Your task to perform on an android device: toggle location history Image 0: 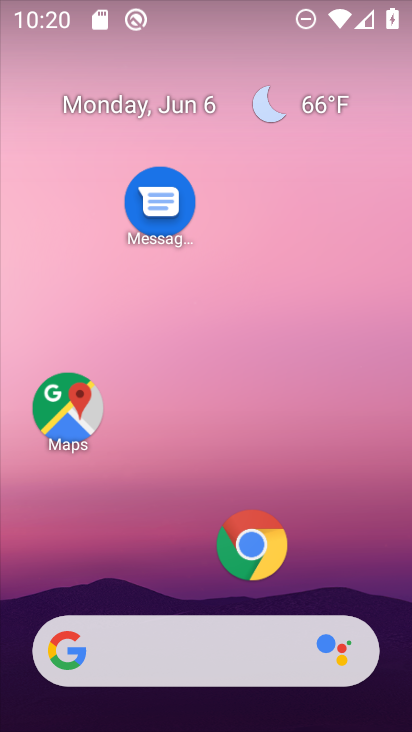
Step 0: drag from (141, 25) to (15, 65)
Your task to perform on an android device: toggle location history Image 1: 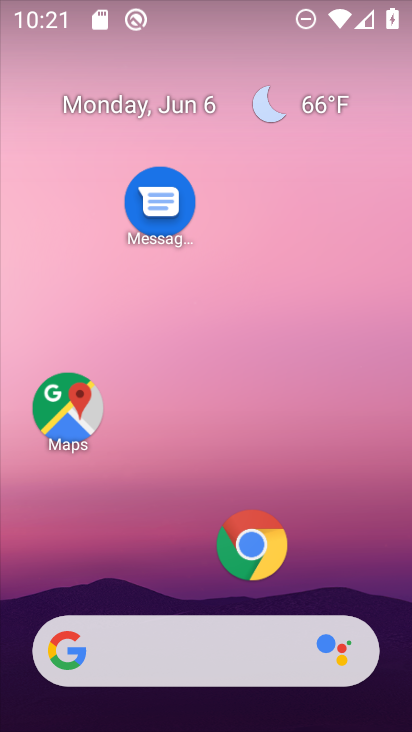
Step 1: click (208, 235)
Your task to perform on an android device: toggle location history Image 2: 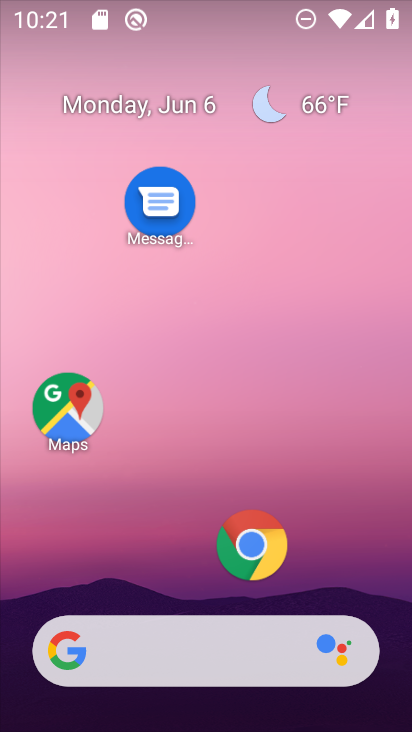
Step 2: drag from (154, 582) to (315, 53)
Your task to perform on an android device: toggle location history Image 3: 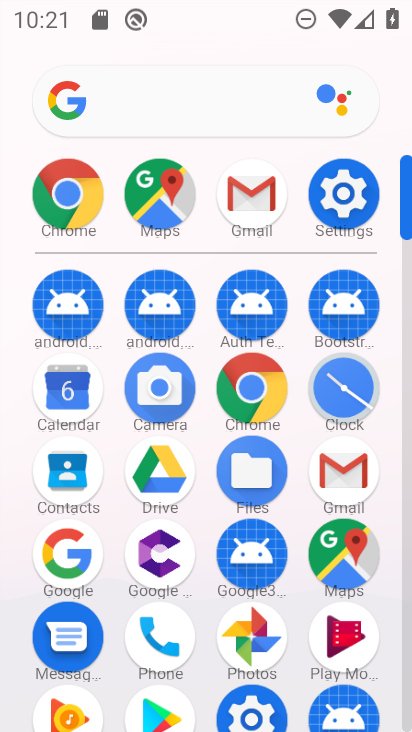
Step 3: click (353, 198)
Your task to perform on an android device: toggle location history Image 4: 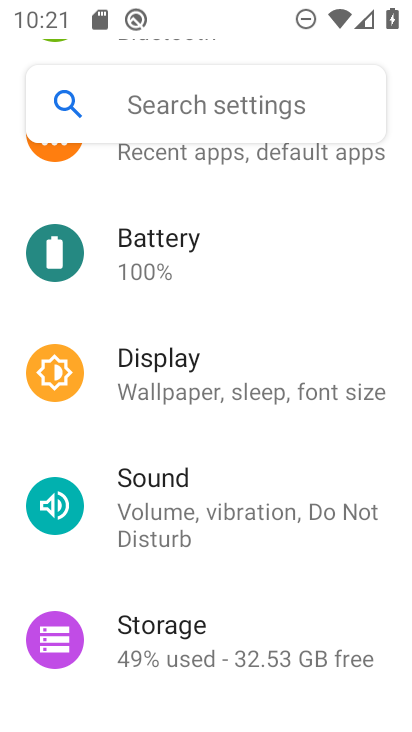
Step 4: drag from (263, 289) to (264, 701)
Your task to perform on an android device: toggle location history Image 5: 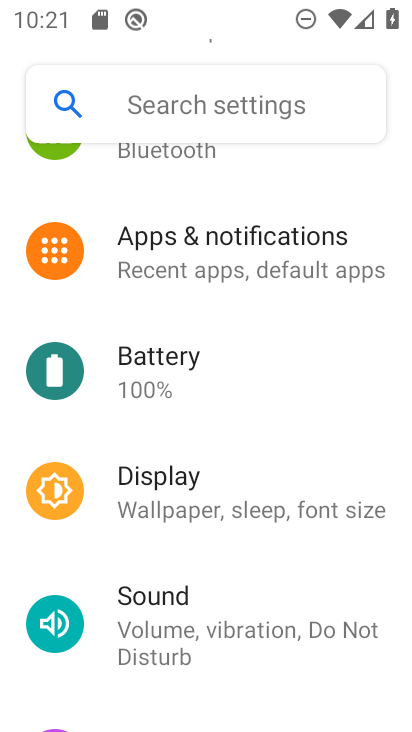
Step 5: drag from (240, 605) to (307, 255)
Your task to perform on an android device: toggle location history Image 6: 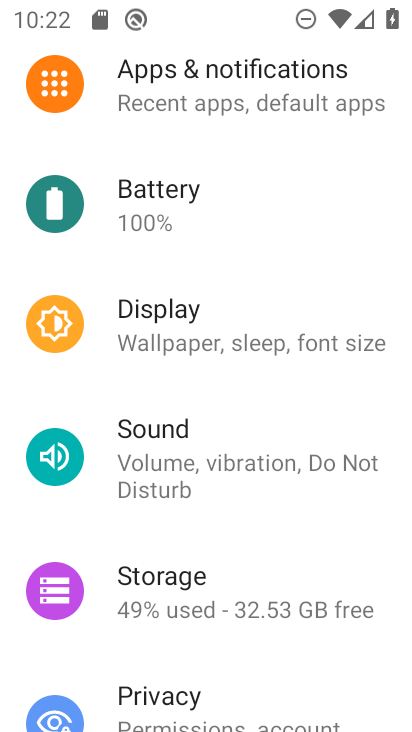
Step 6: drag from (250, 684) to (327, 253)
Your task to perform on an android device: toggle location history Image 7: 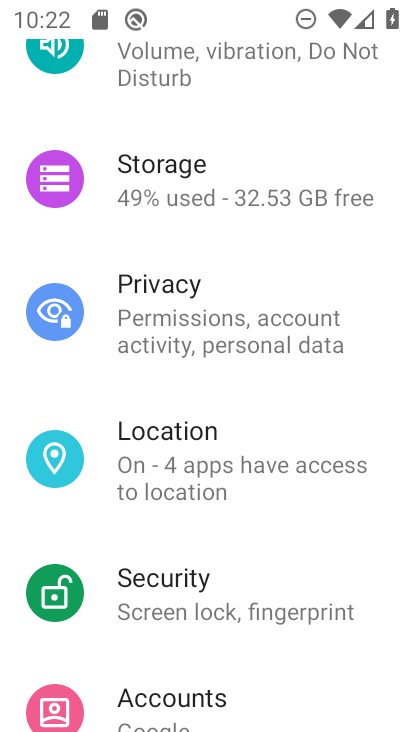
Step 7: click (155, 475)
Your task to perform on an android device: toggle location history Image 8: 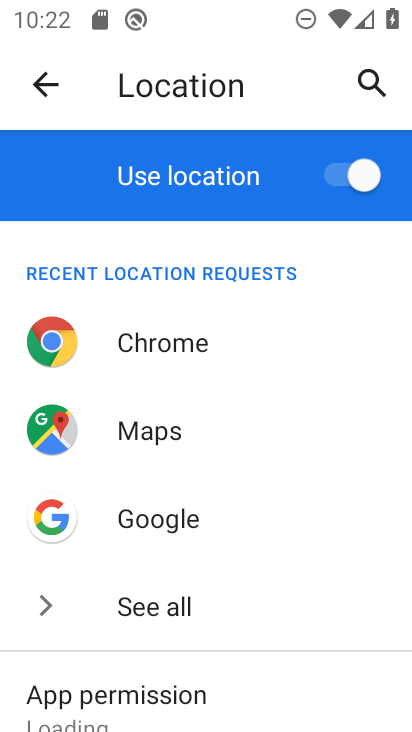
Step 8: drag from (232, 620) to (289, 223)
Your task to perform on an android device: toggle location history Image 9: 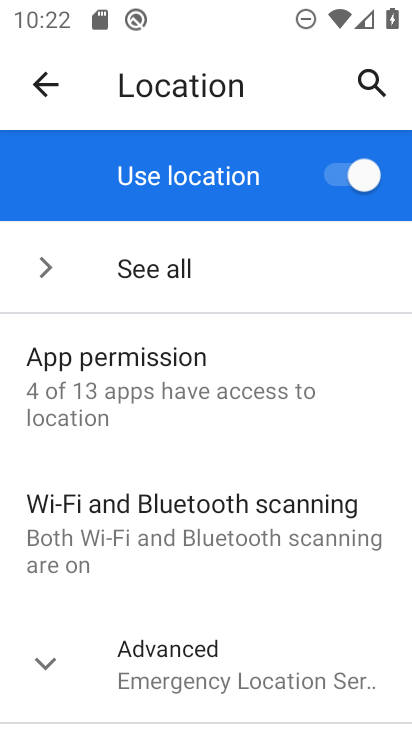
Step 9: click (42, 658)
Your task to perform on an android device: toggle location history Image 10: 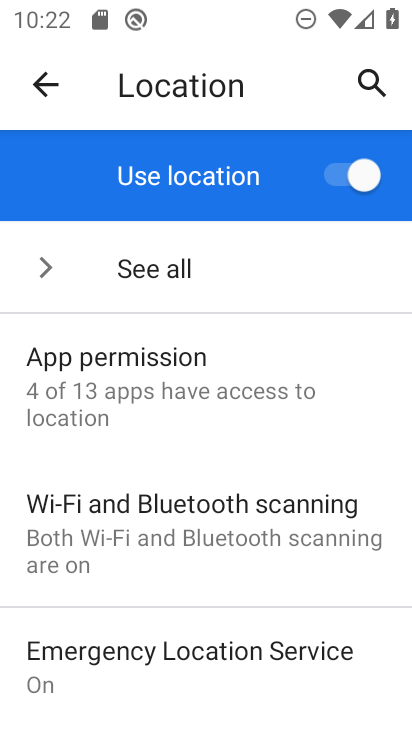
Step 10: drag from (177, 607) to (314, 291)
Your task to perform on an android device: toggle location history Image 11: 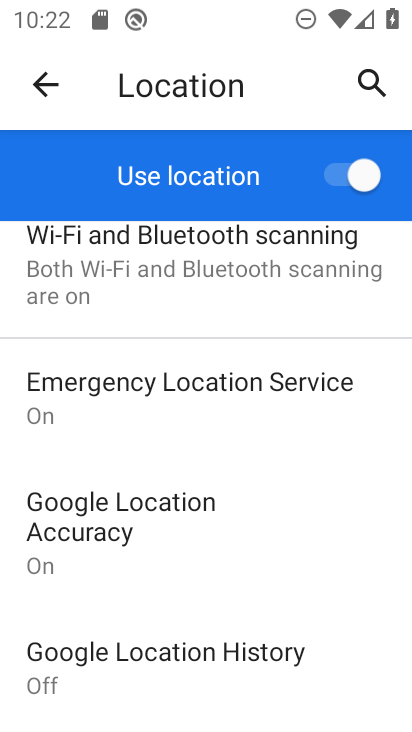
Step 11: click (73, 683)
Your task to perform on an android device: toggle location history Image 12: 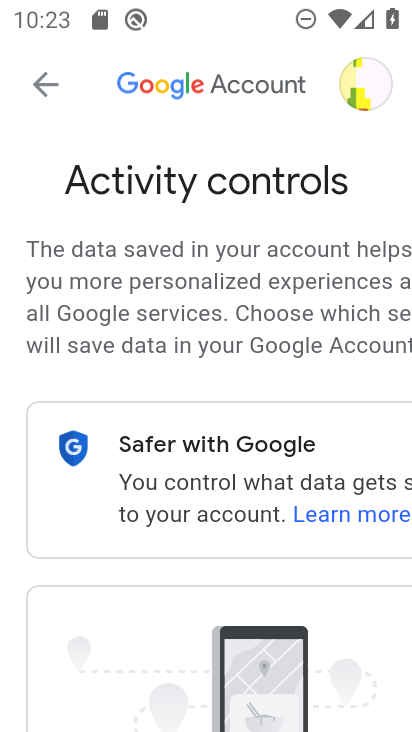
Step 12: drag from (208, 589) to (210, 270)
Your task to perform on an android device: toggle location history Image 13: 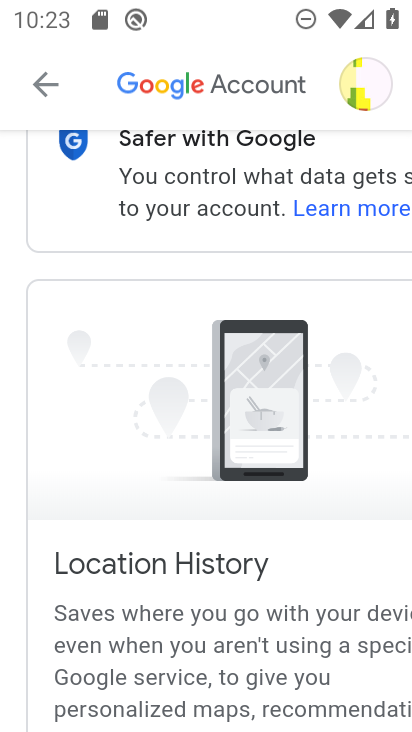
Step 13: drag from (286, 695) to (322, 327)
Your task to perform on an android device: toggle location history Image 14: 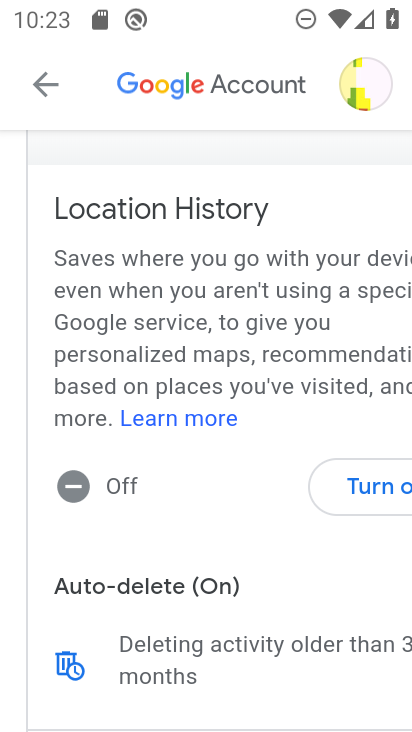
Step 14: click (337, 503)
Your task to perform on an android device: toggle location history Image 15: 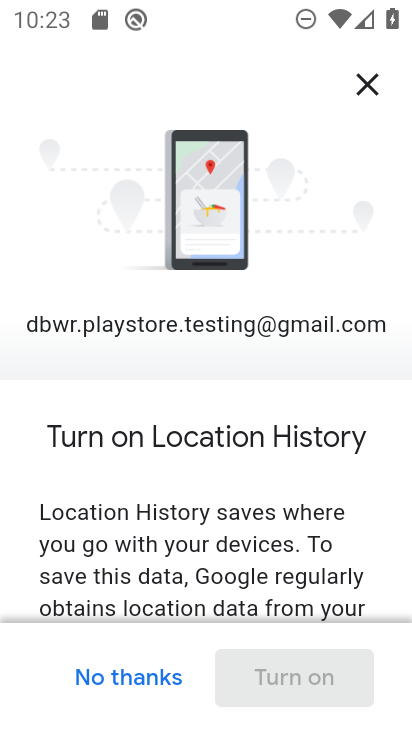
Step 15: click (122, 656)
Your task to perform on an android device: toggle location history Image 16: 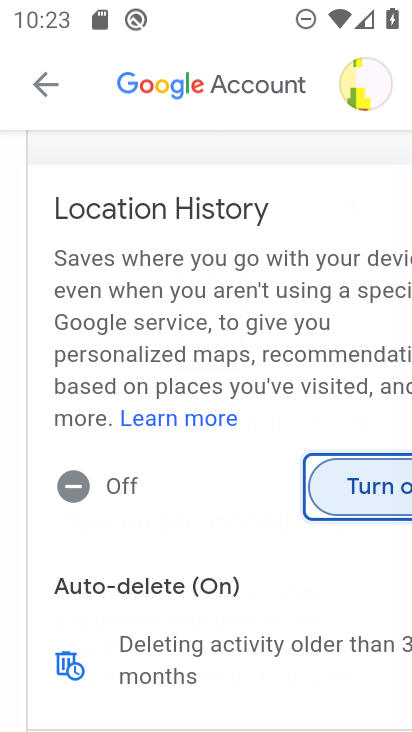
Step 16: task complete